Your task to perform on an android device: Open Amazon Image 0: 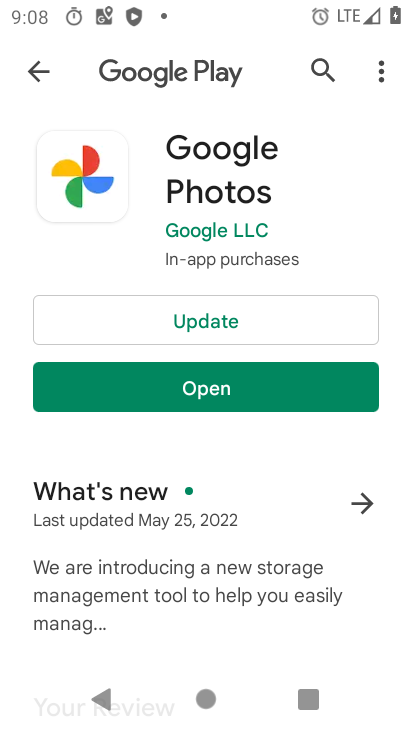
Step 0: press home button
Your task to perform on an android device: Open Amazon Image 1: 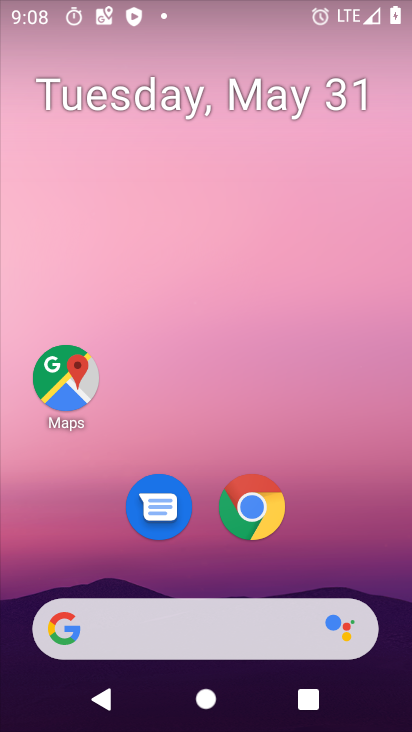
Step 1: click (252, 507)
Your task to perform on an android device: Open Amazon Image 2: 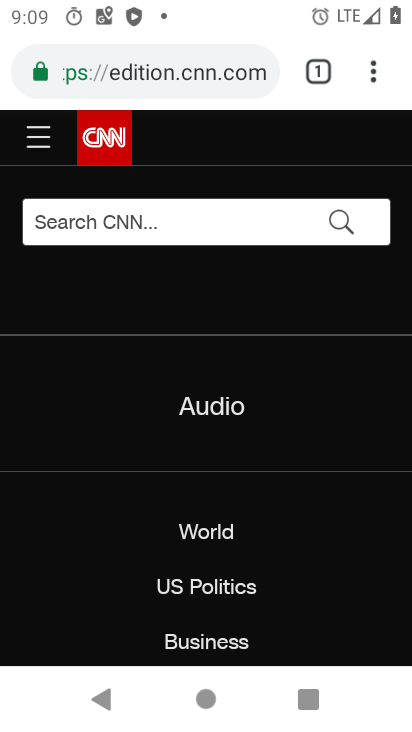
Step 2: press home button
Your task to perform on an android device: Open Amazon Image 3: 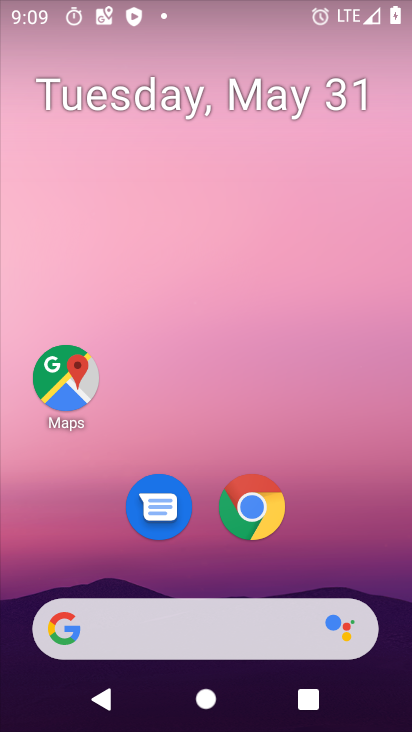
Step 3: click (248, 504)
Your task to perform on an android device: Open Amazon Image 4: 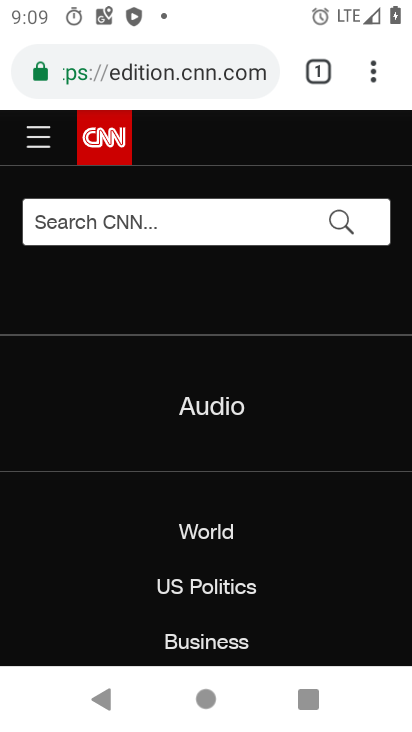
Step 4: click (306, 69)
Your task to perform on an android device: Open Amazon Image 5: 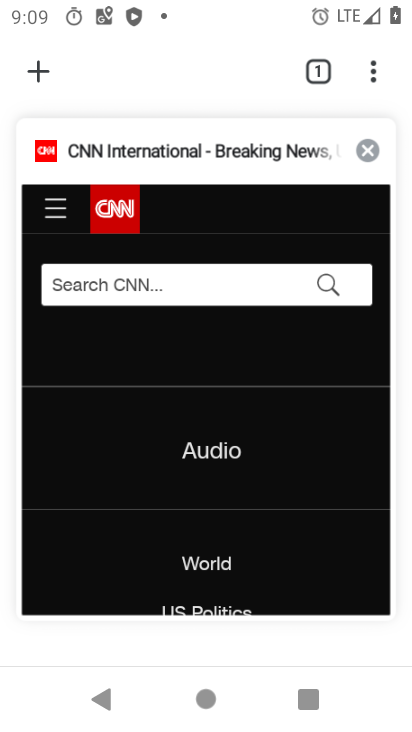
Step 5: click (52, 68)
Your task to perform on an android device: Open Amazon Image 6: 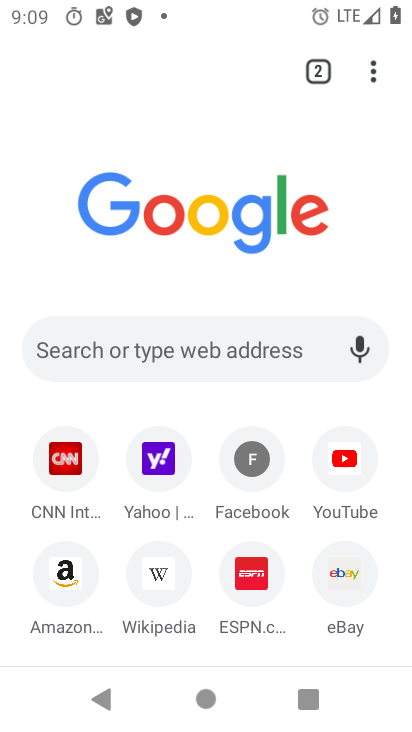
Step 6: click (64, 595)
Your task to perform on an android device: Open Amazon Image 7: 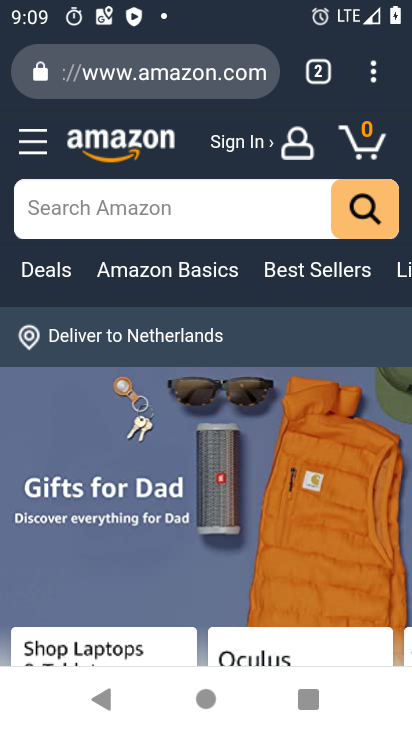
Step 7: task complete